Your task to perform on an android device: turn on showing notifications on the lock screen Image 0: 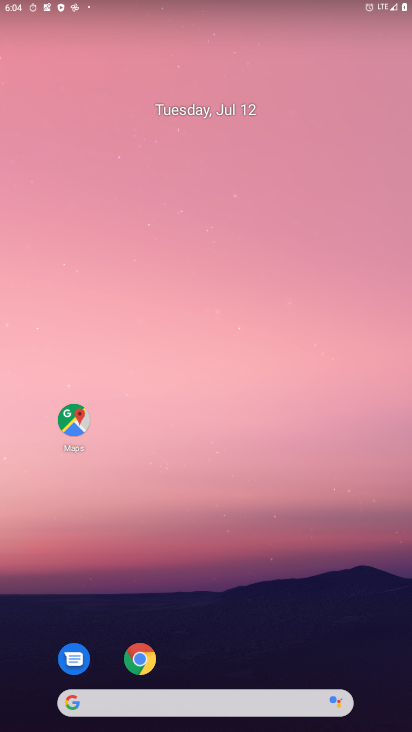
Step 0: drag from (202, 191) to (212, 116)
Your task to perform on an android device: turn on showing notifications on the lock screen Image 1: 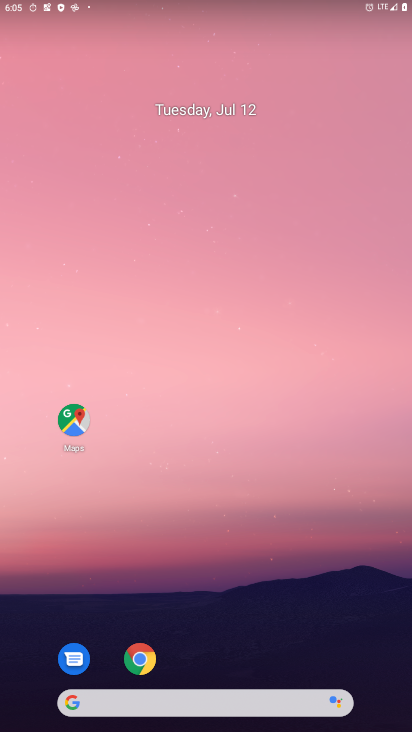
Step 1: drag from (203, 510) to (203, 232)
Your task to perform on an android device: turn on showing notifications on the lock screen Image 2: 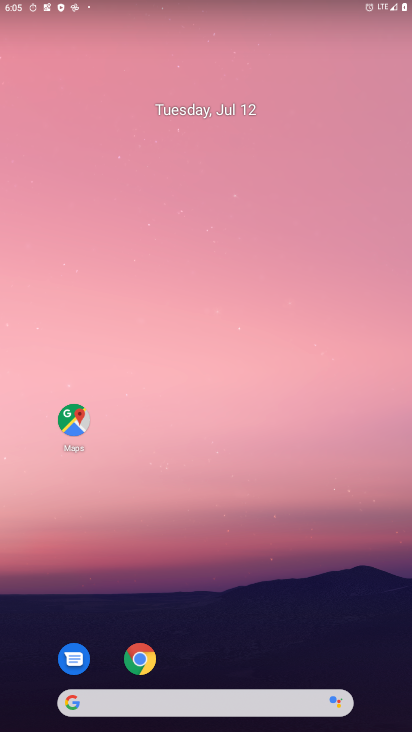
Step 2: drag from (206, 118) to (214, 16)
Your task to perform on an android device: turn on showing notifications on the lock screen Image 3: 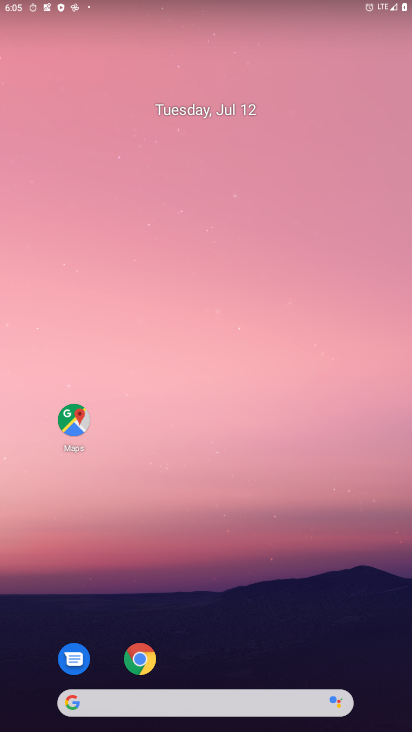
Step 3: drag from (204, 590) to (210, 153)
Your task to perform on an android device: turn on showing notifications on the lock screen Image 4: 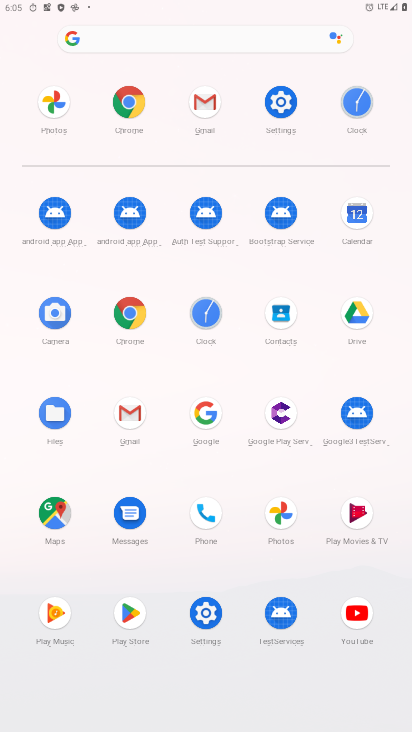
Step 4: click (277, 102)
Your task to perform on an android device: turn on showing notifications on the lock screen Image 5: 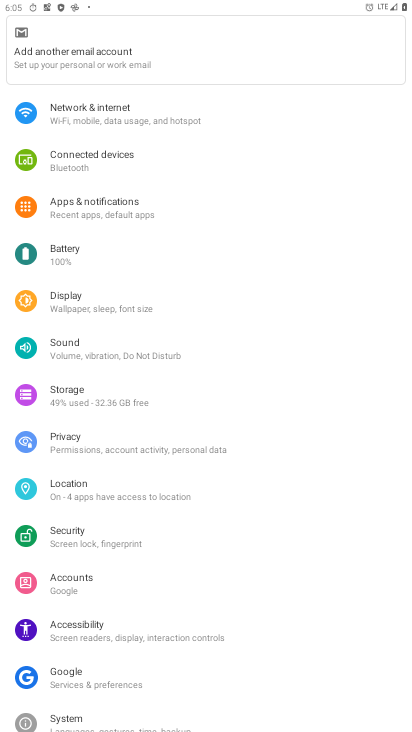
Step 5: drag from (59, 618) to (97, 472)
Your task to perform on an android device: turn on showing notifications on the lock screen Image 6: 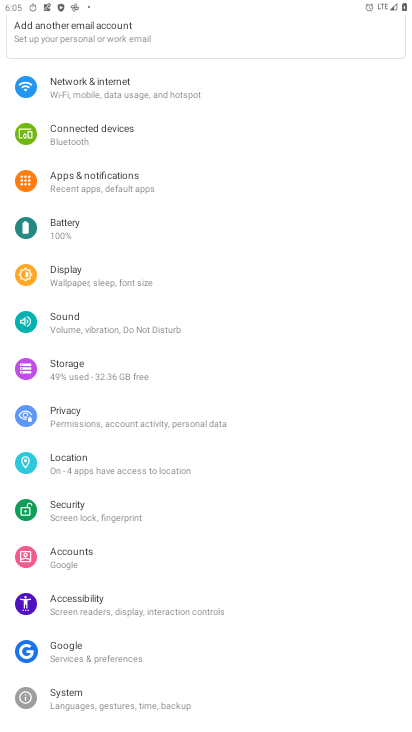
Step 6: drag from (128, 584) to (142, 406)
Your task to perform on an android device: turn on showing notifications on the lock screen Image 7: 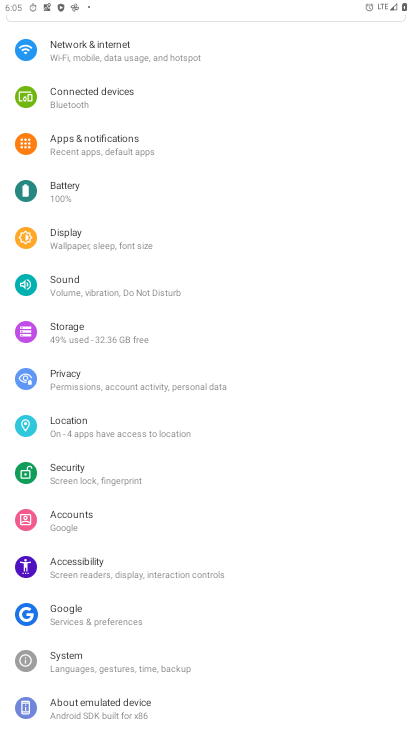
Step 7: click (62, 150)
Your task to perform on an android device: turn on showing notifications on the lock screen Image 8: 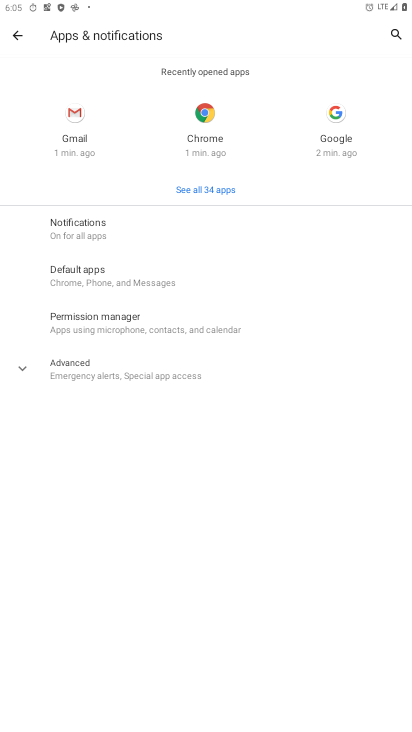
Step 8: click (90, 229)
Your task to perform on an android device: turn on showing notifications on the lock screen Image 9: 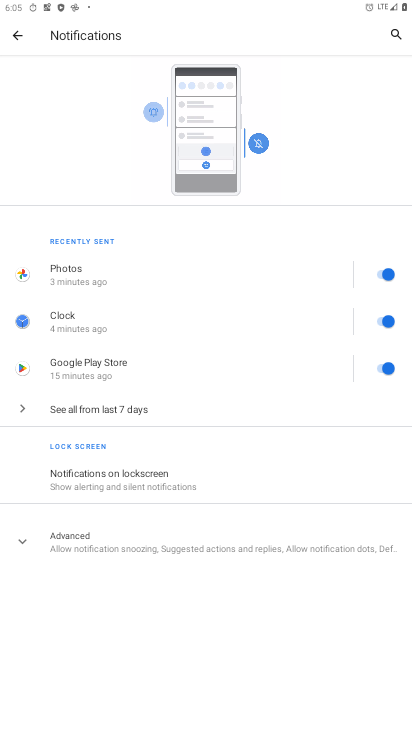
Step 9: click (92, 494)
Your task to perform on an android device: turn on showing notifications on the lock screen Image 10: 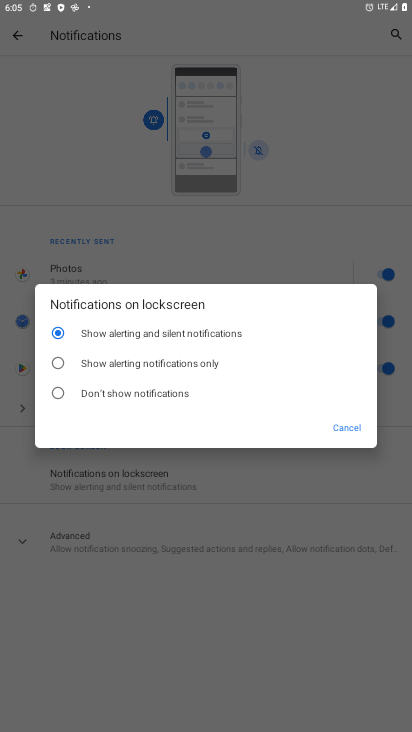
Step 10: task complete